Your task to perform on an android device: check data usage Image 0: 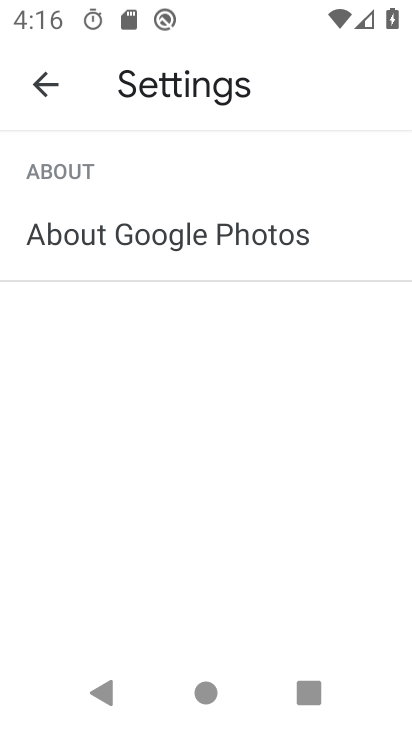
Step 0: press home button
Your task to perform on an android device: check data usage Image 1: 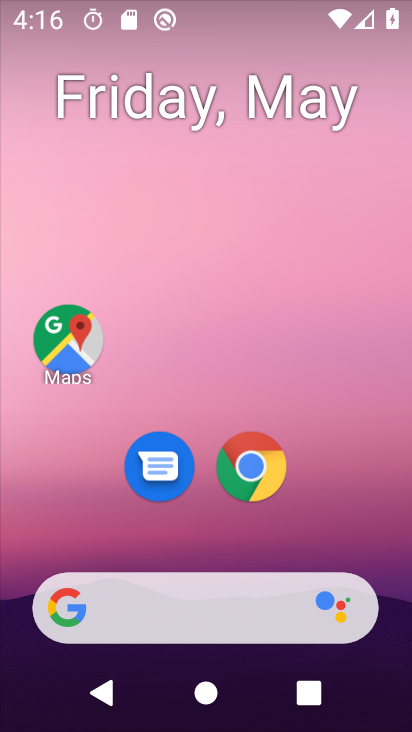
Step 1: drag from (385, 557) to (384, 101)
Your task to perform on an android device: check data usage Image 2: 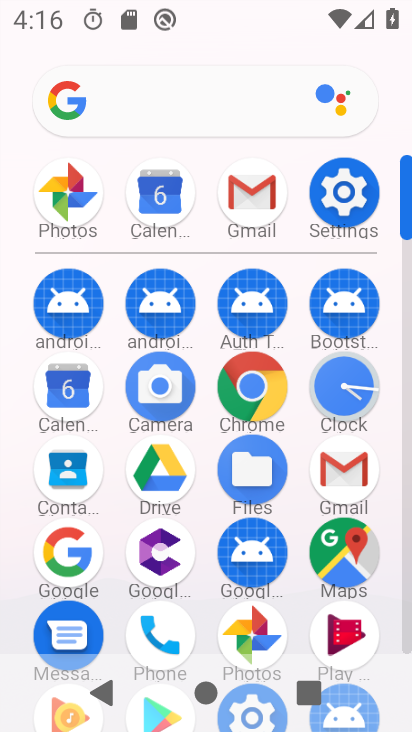
Step 2: click (354, 188)
Your task to perform on an android device: check data usage Image 3: 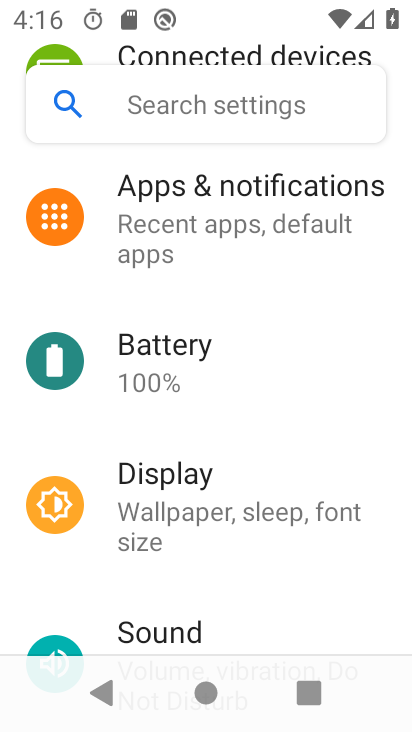
Step 3: click (365, 303)
Your task to perform on an android device: check data usage Image 4: 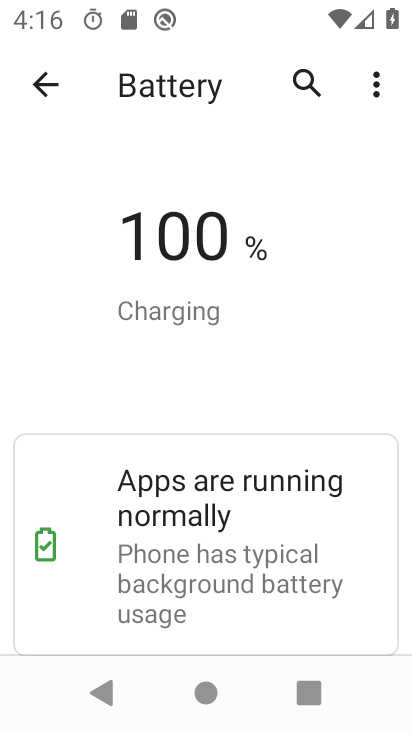
Step 4: press back button
Your task to perform on an android device: check data usage Image 5: 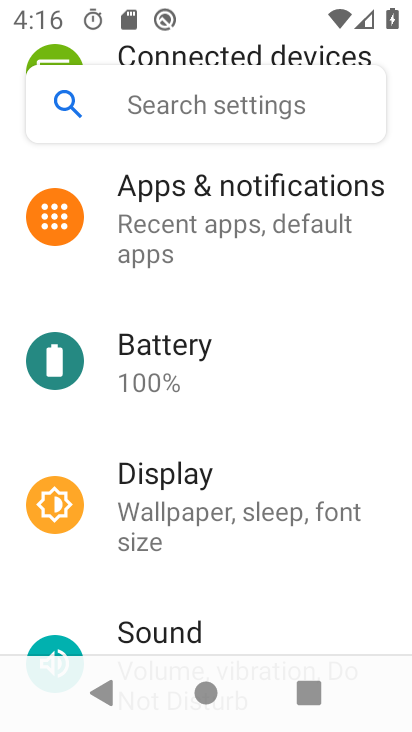
Step 5: drag from (347, 342) to (356, 519)
Your task to perform on an android device: check data usage Image 6: 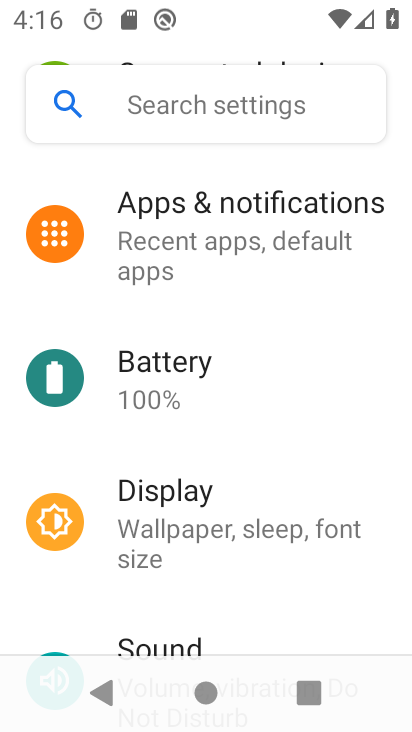
Step 6: drag from (305, 235) to (339, 566)
Your task to perform on an android device: check data usage Image 7: 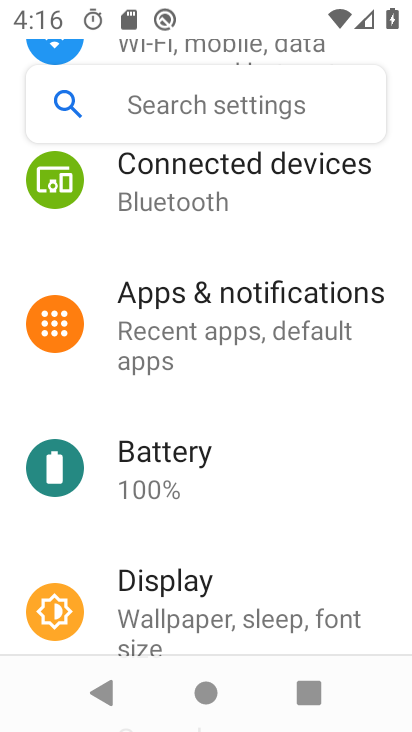
Step 7: drag from (334, 186) to (363, 574)
Your task to perform on an android device: check data usage Image 8: 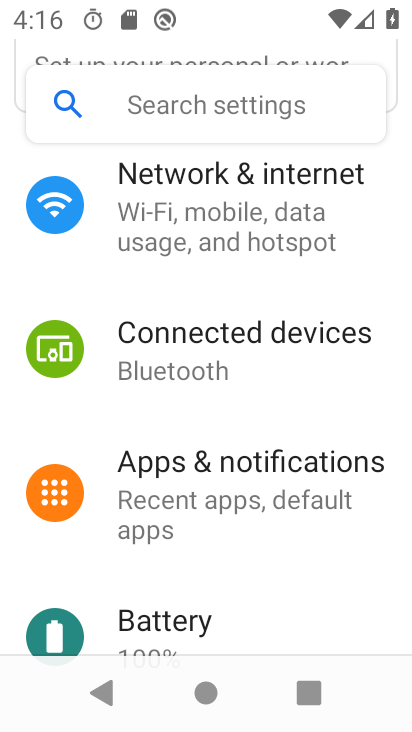
Step 8: click (217, 221)
Your task to perform on an android device: check data usage Image 9: 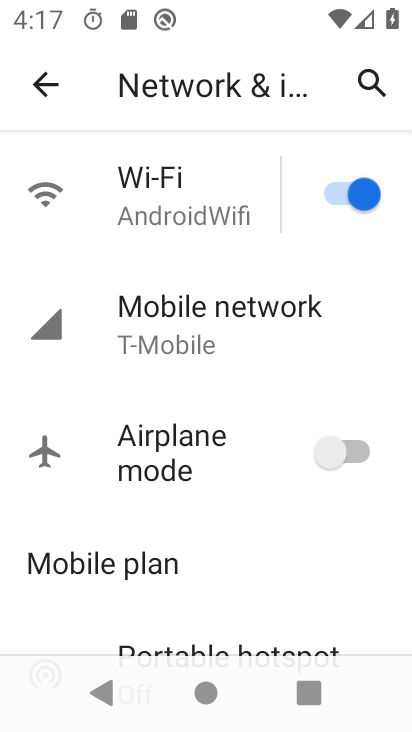
Step 9: click (173, 340)
Your task to perform on an android device: check data usage Image 10: 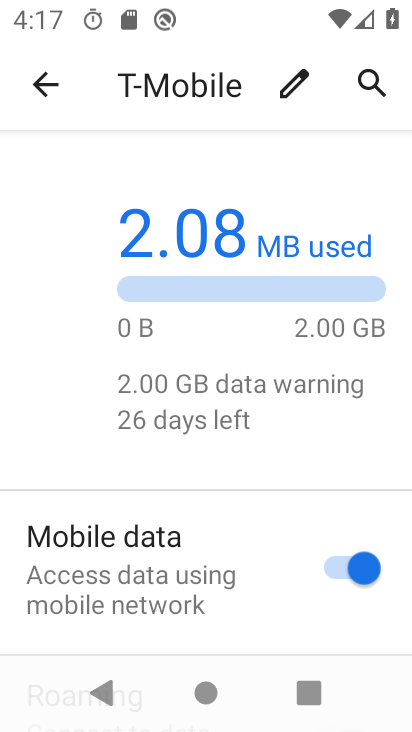
Step 10: task complete